Your task to perform on an android device: turn smart compose on in the gmail app Image 0: 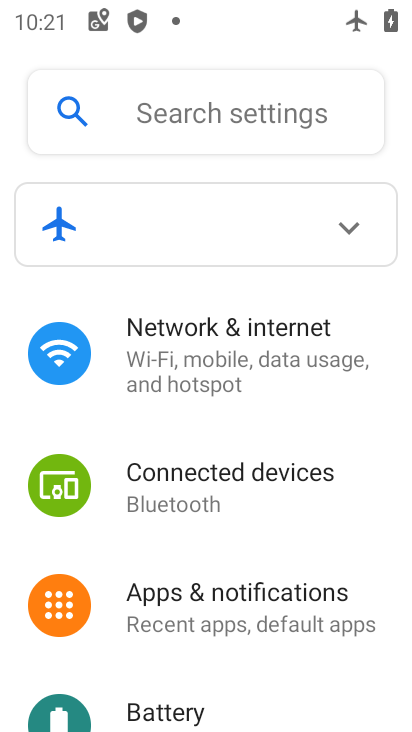
Step 0: press home button
Your task to perform on an android device: turn smart compose on in the gmail app Image 1: 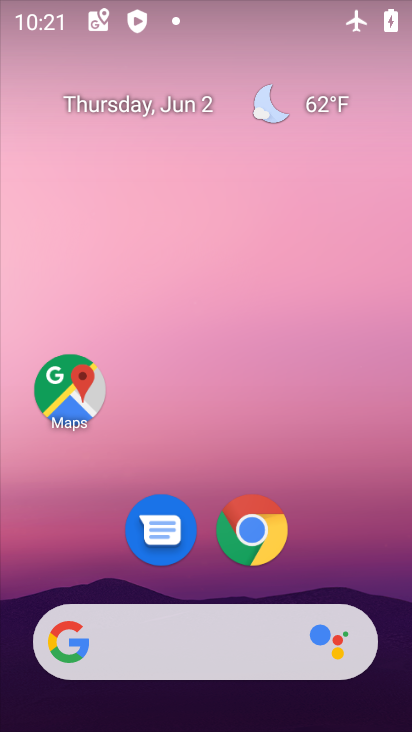
Step 1: drag from (91, 595) to (197, 113)
Your task to perform on an android device: turn smart compose on in the gmail app Image 2: 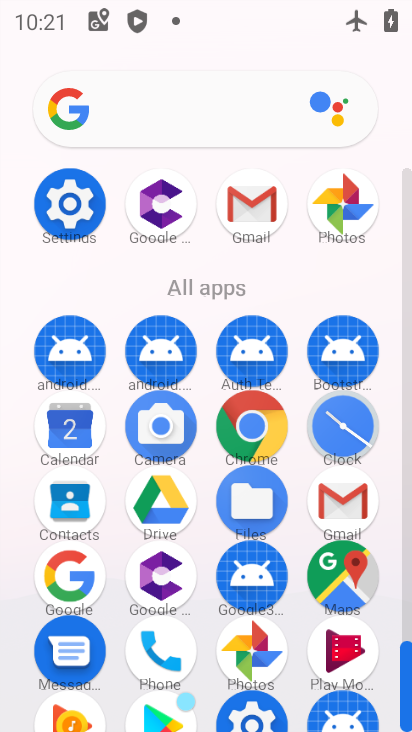
Step 2: click (372, 508)
Your task to perform on an android device: turn smart compose on in the gmail app Image 3: 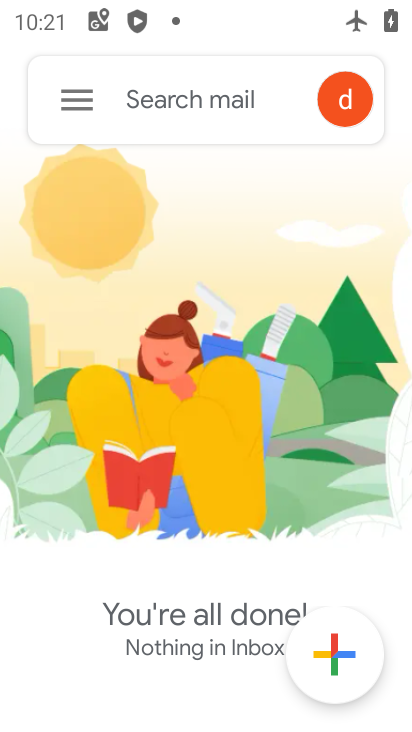
Step 3: click (104, 113)
Your task to perform on an android device: turn smart compose on in the gmail app Image 4: 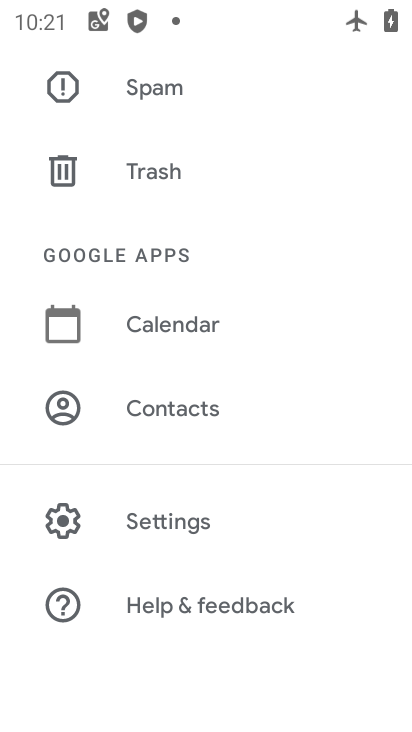
Step 4: click (196, 530)
Your task to perform on an android device: turn smart compose on in the gmail app Image 5: 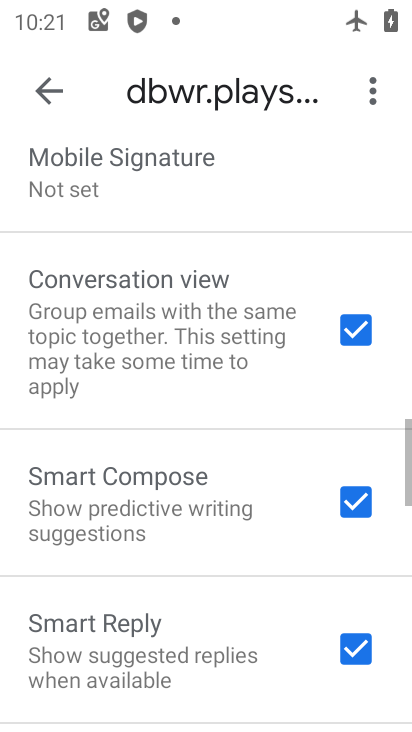
Step 5: task complete